Your task to perform on an android device: check data usage Image 0: 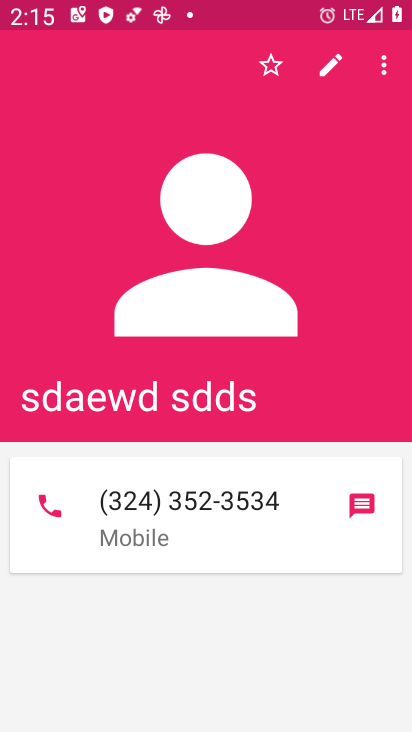
Step 0: press home button
Your task to perform on an android device: check data usage Image 1: 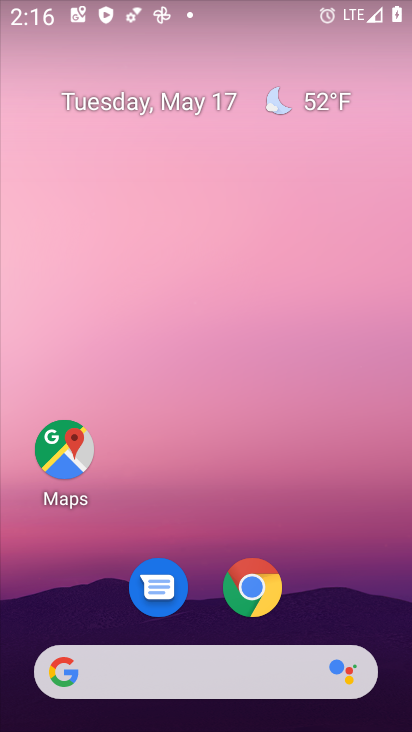
Step 1: drag from (320, 579) to (295, 61)
Your task to perform on an android device: check data usage Image 2: 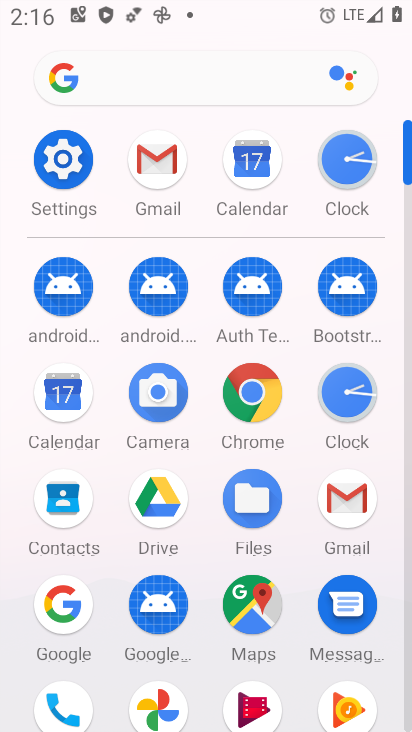
Step 2: click (41, 168)
Your task to perform on an android device: check data usage Image 3: 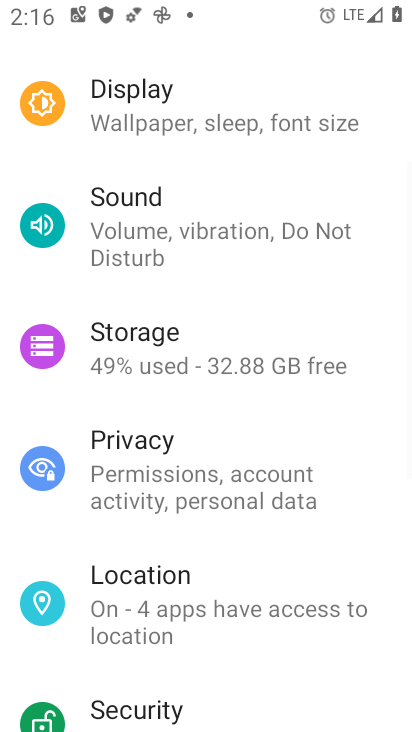
Step 3: drag from (180, 142) to (208, 555)
Your task to perform on an android device: check data usage Image 4: 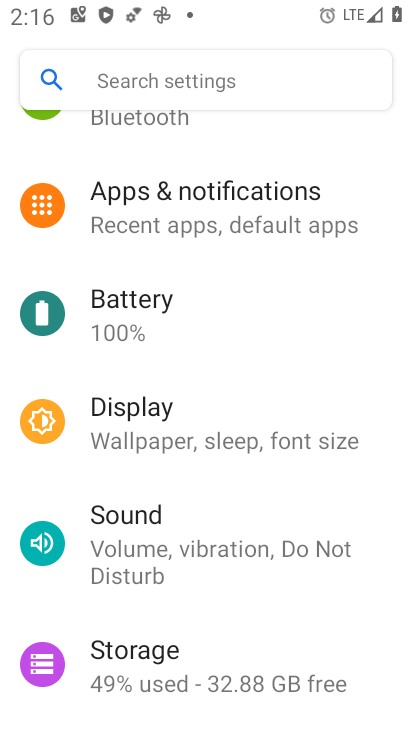
Step 4: drag from (220, 166) to (206, 505)
Your task to perform on an android device: check data usage Image 5: 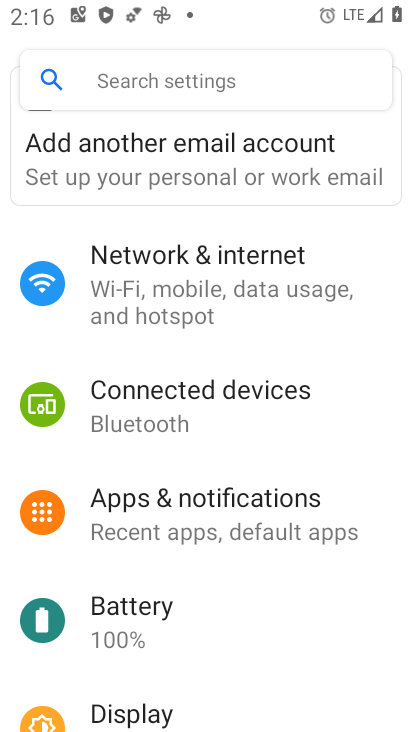
Step 5: click (183, 246)
Your task to perform on an android device: check data usage Image 6: 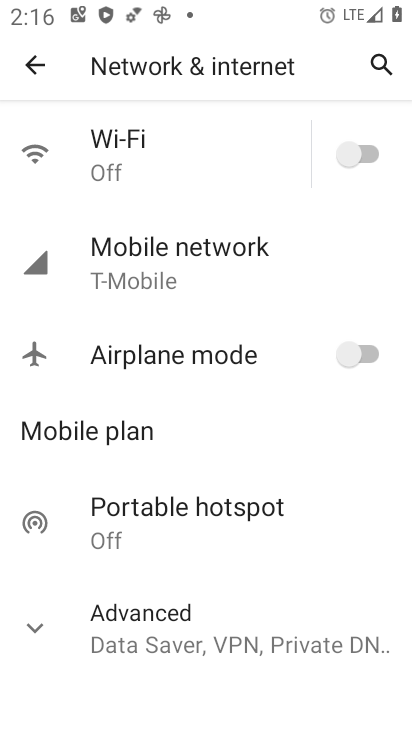
Step 6: click (186, 241)
Your task to perform on an android device: check data usage Image 7: 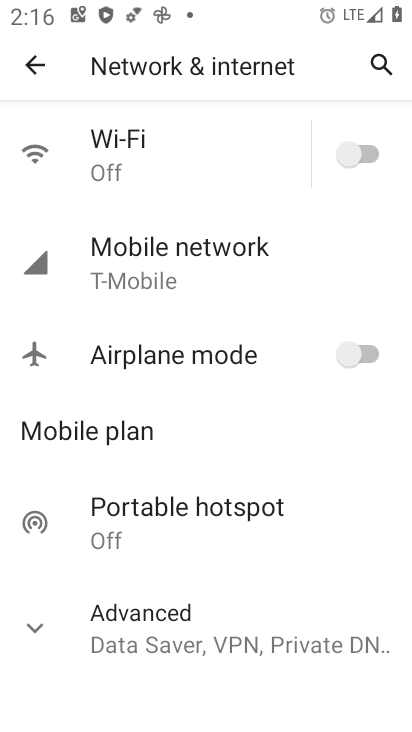
Step 7: task complete